Your task to perform on an android device: check google app version Image 0: 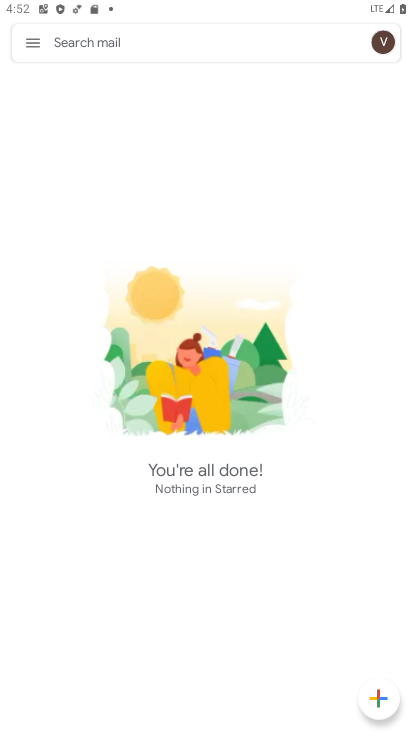
Step 0: press home button
Your task to perform on an android device: check google app version Image 1: 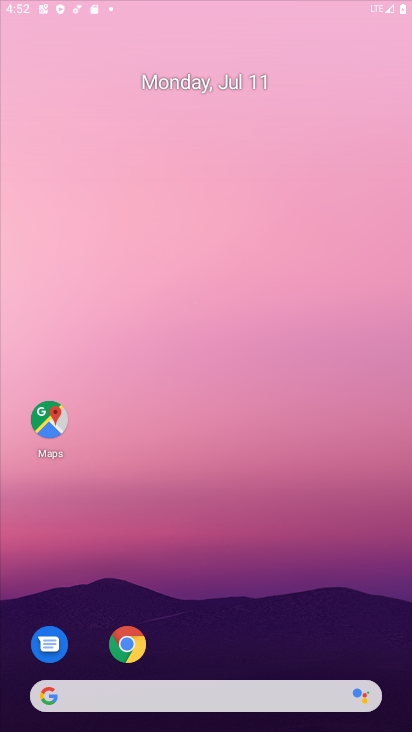
Step 1: drag from (152, 685) to (229, 7)
Your task to perform on an android device: check google app version Image 2: 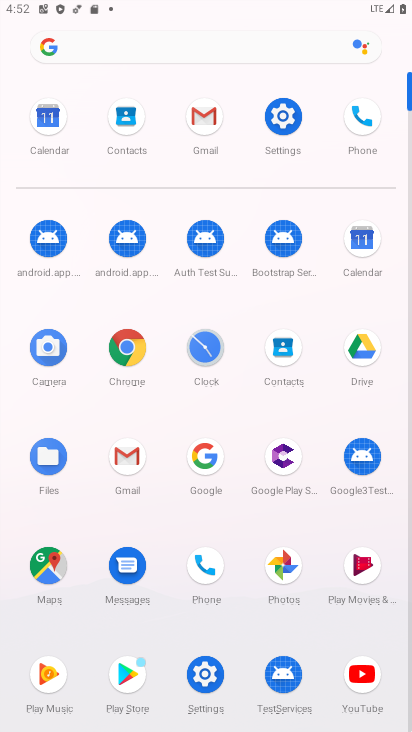
Step 2: click (202, 448)
Your task to perform on an android device: check google app version Image 3: 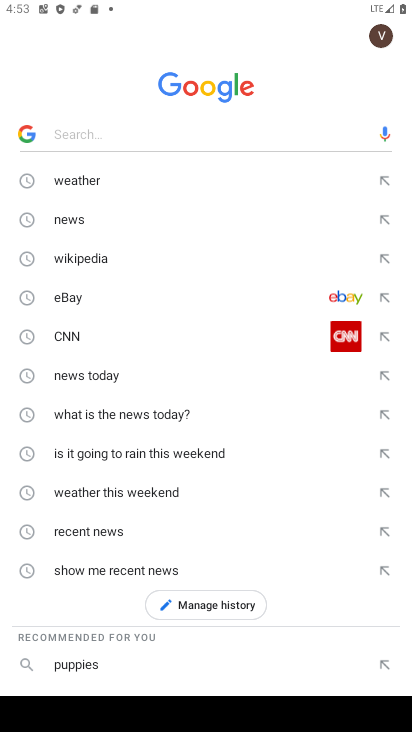
Step 3: click (377, 34)
Your task to perform on an android device: check google app version Image 4: 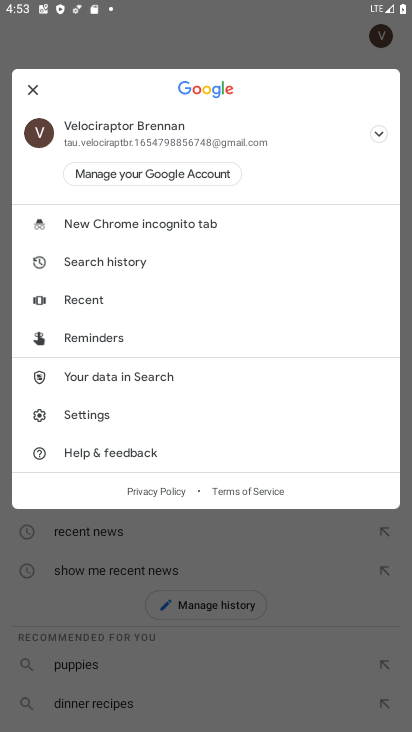
Step 4: click (155, 460)
Your task to perform on an android device: check google app version Image 5: 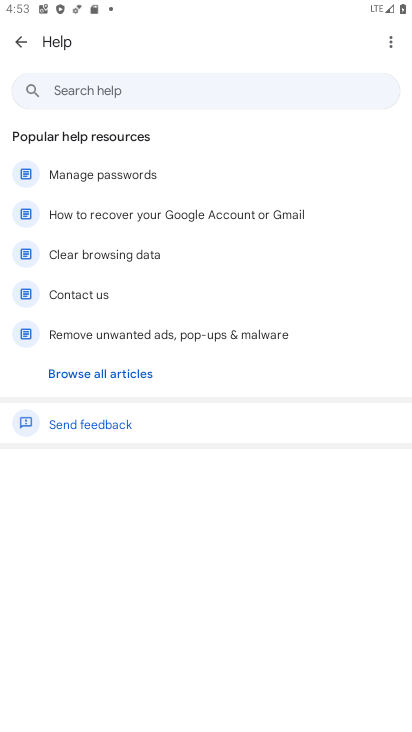
Step 5: click (389, 40)
Your task to perform on an android device: check google app version Image 6: 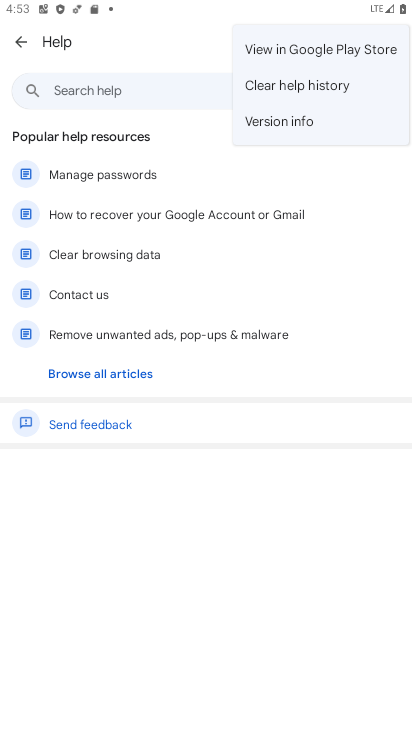
Step 6: click (305, 120)
Your task to perform on an android device: check google app version Image 7: 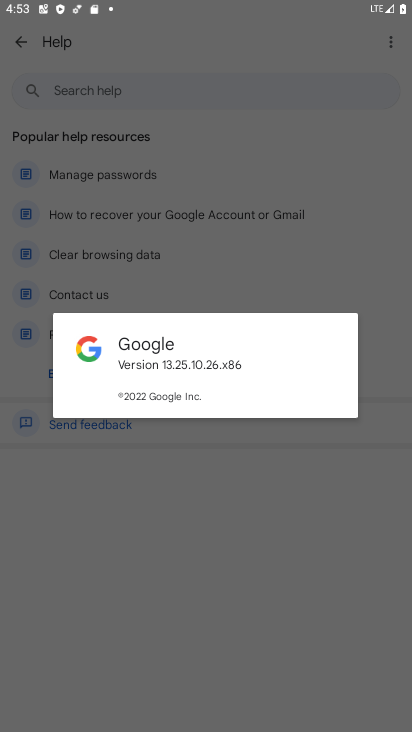
Step 7: task complete